Your task to perform on an android device: turn off location history Image 0: 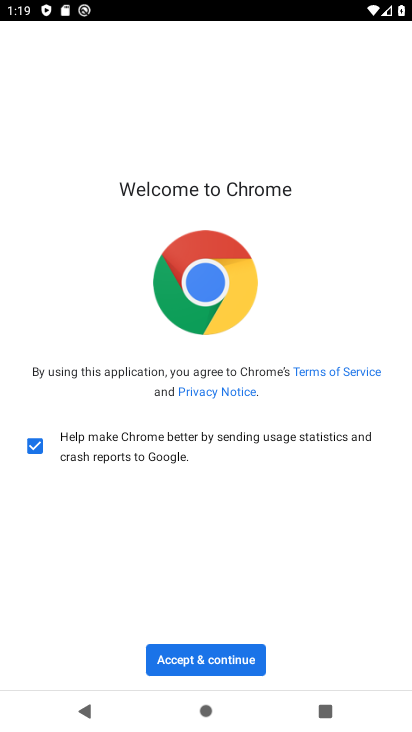
Step 0: press home button
Your task to perform on an android device: turn off location history Image 1: 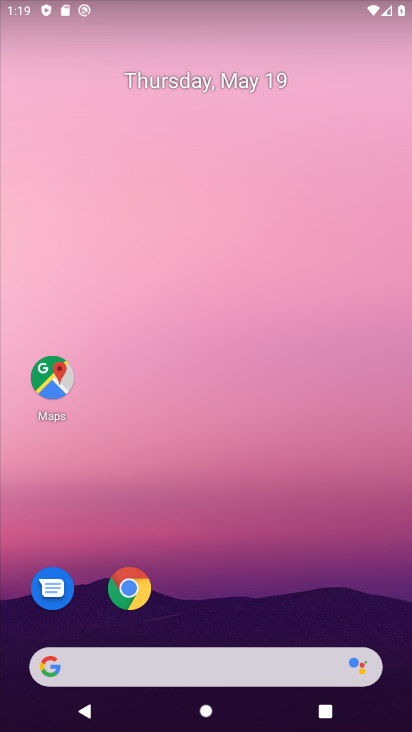
Step 1: drag from (235, 564) to (229, 158)
Your task to perform on an android device: turn off location history Image 2: 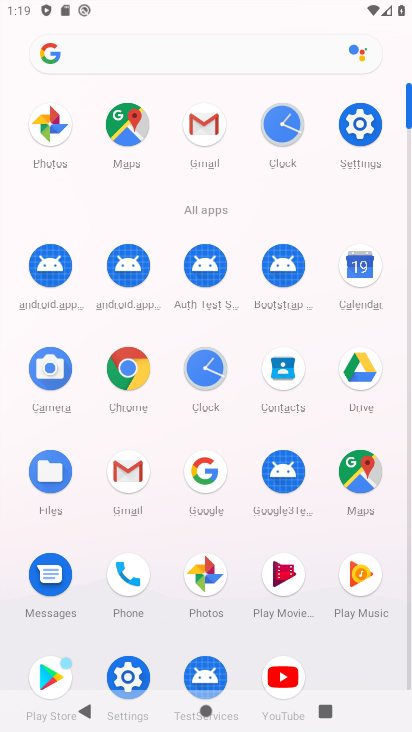
Step 2: click (353, 127)
Your task to perform on an android device: turn off location history Image 3: 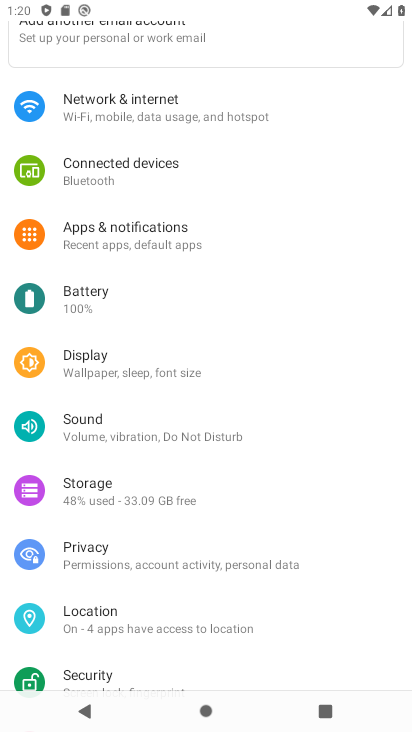
Step 3: click (115, 613)
Your task to perform on an android device: turn off location history Image 4: 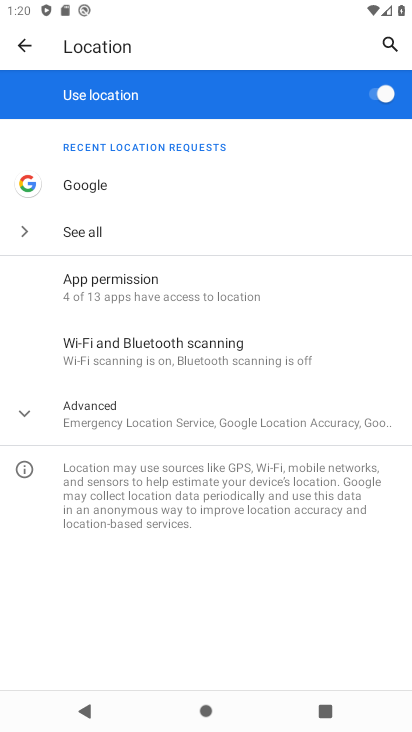
Step 4: click (177, 409)
Your task to perform on an android device: turn off location history Image 5: 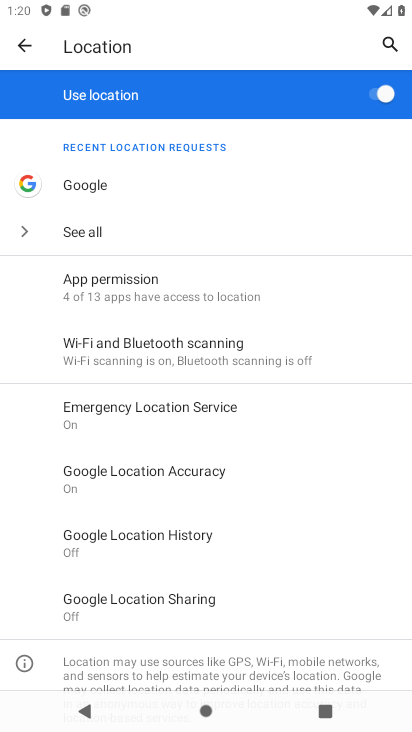
Step 5: click (156, 548)
Your task to perform on an android device: turn off location history Image 6: 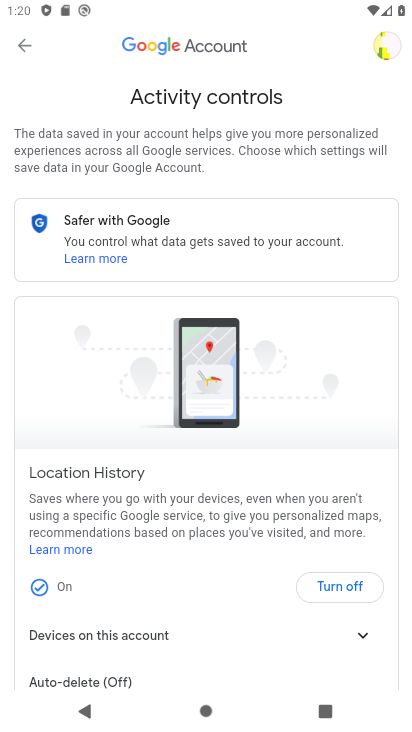
Step 6: click (350, 552)
Your task to perform on an android device: turn off location history Image 7: 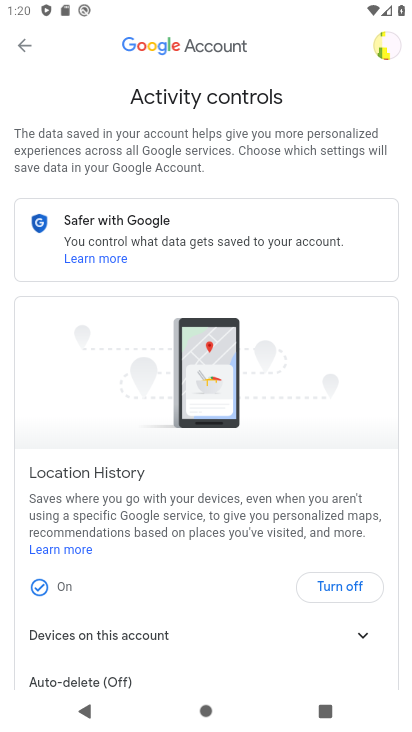
Step 7: click (343, 565)
Your task to perform on an android device: turn off location history Image 8: 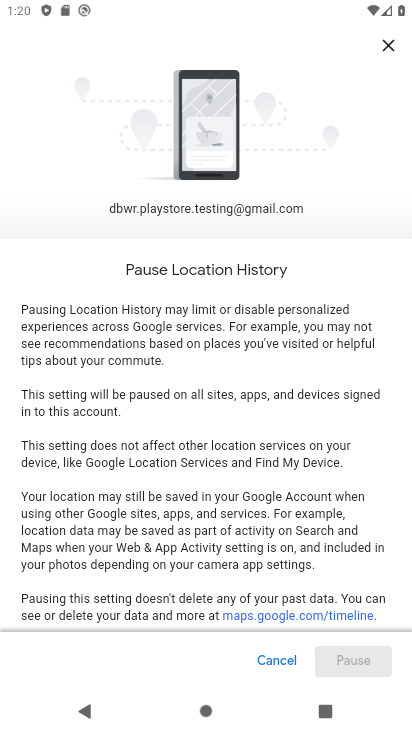
Step 8: drag from (321, 561) to (307, 1)
Your task to perform on an android device: turn off location history Image 9: 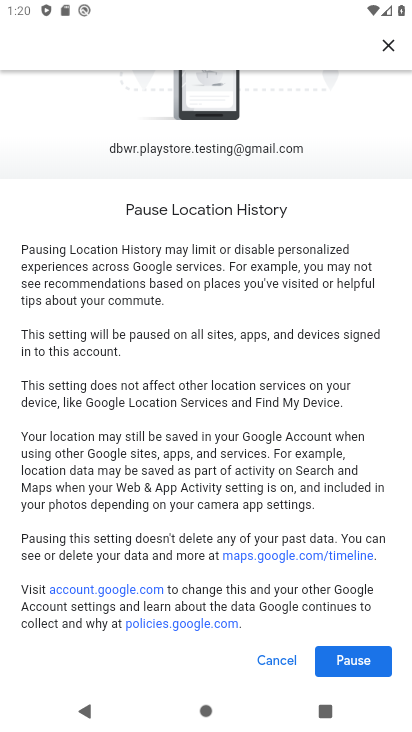
Step 9: drag from (256, 499) to (286, 149)
Your task to perform on an android device: turn off location history Image 10: 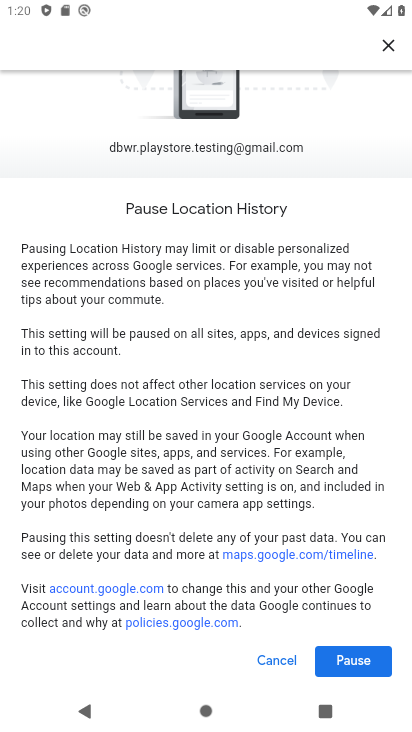
Step 10: click (371, 668)
Your task to perform on an android device: turn off location history Image 11: 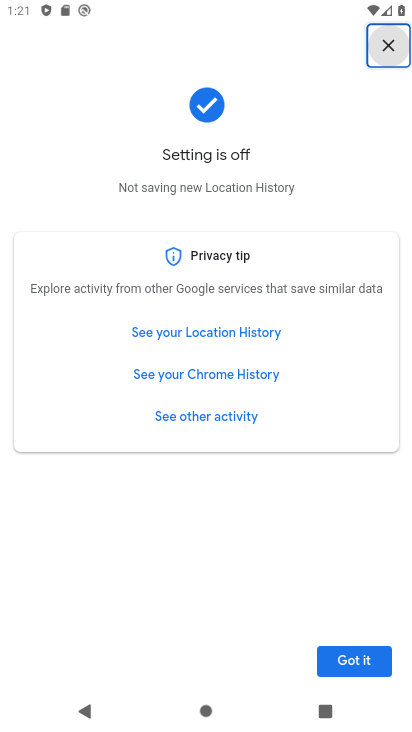
Step 11: task complete